Your task to perform on an android device: Show the shopping cart on newegg. Image 0: 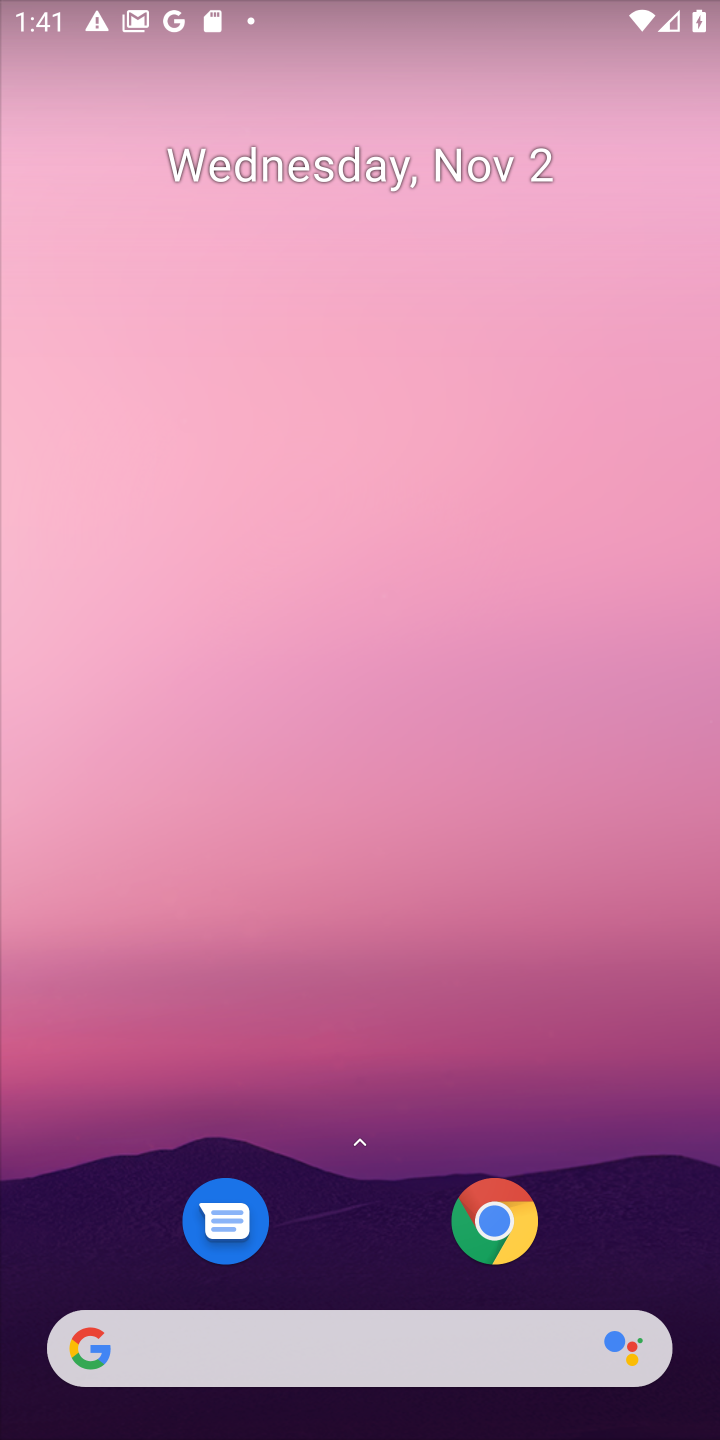
Step 0: click (312, 1338)
Your task to perform on an android device: Show the shopping cart on newegg. Image 1: 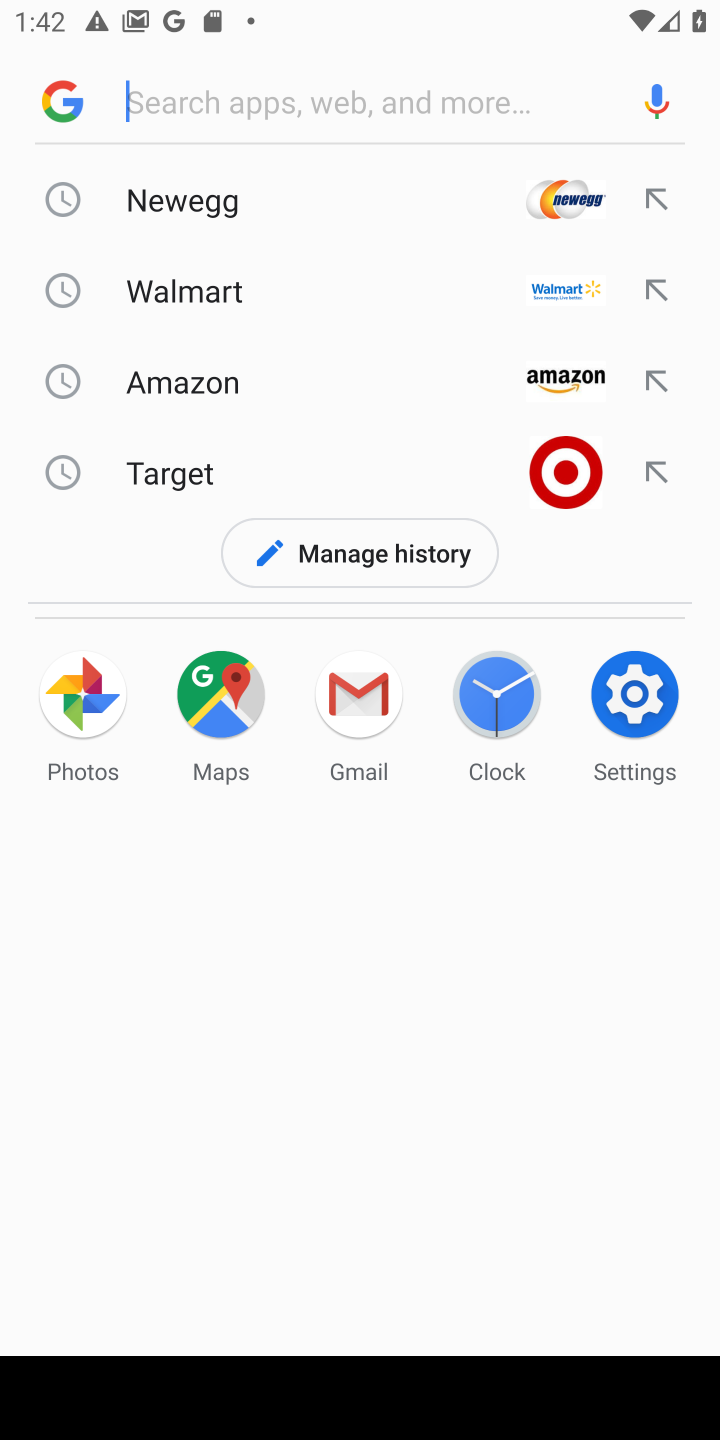
Step 1: click (171, 198)
Your task to perform on an android device: Show the shopping cart on newegg. Image 2: 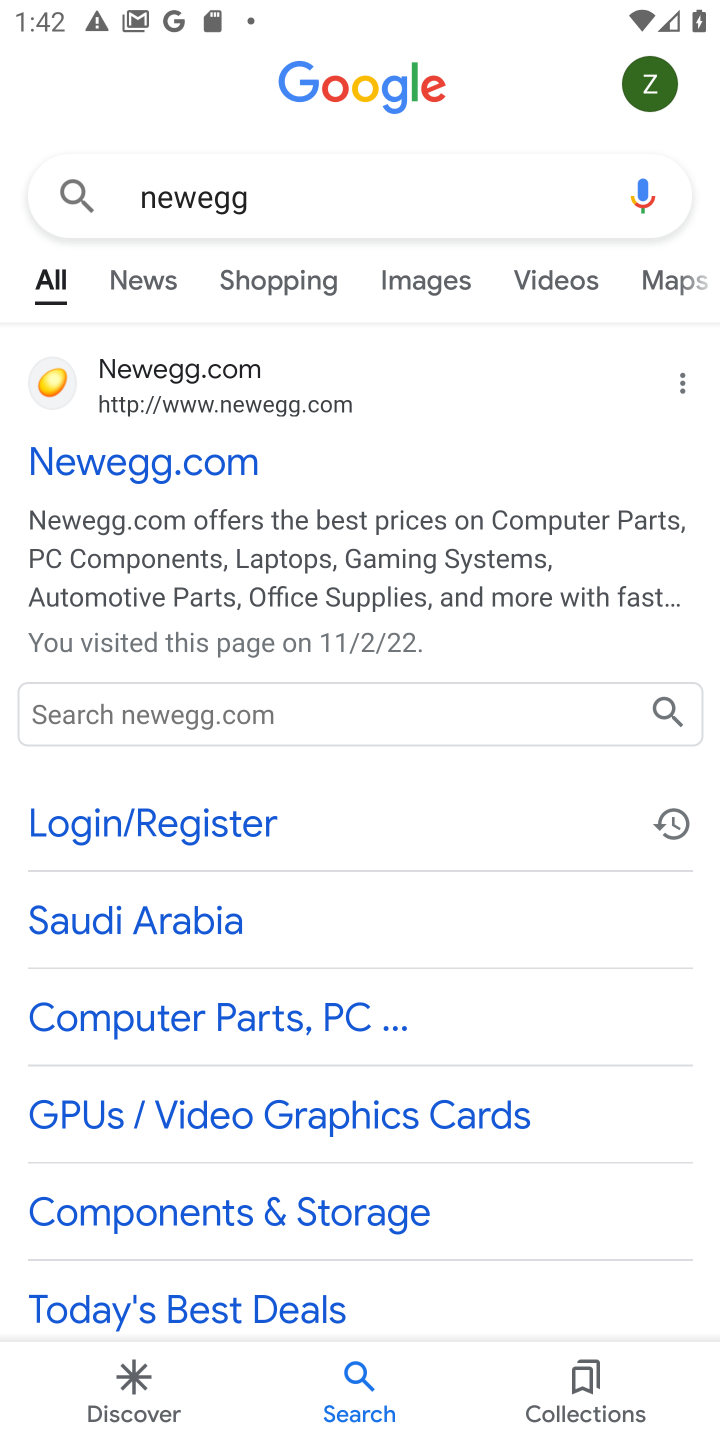
Step 2: click (156, 438)
Your task to perform on an android device: Show the shopping cart on newegg. Image 3: 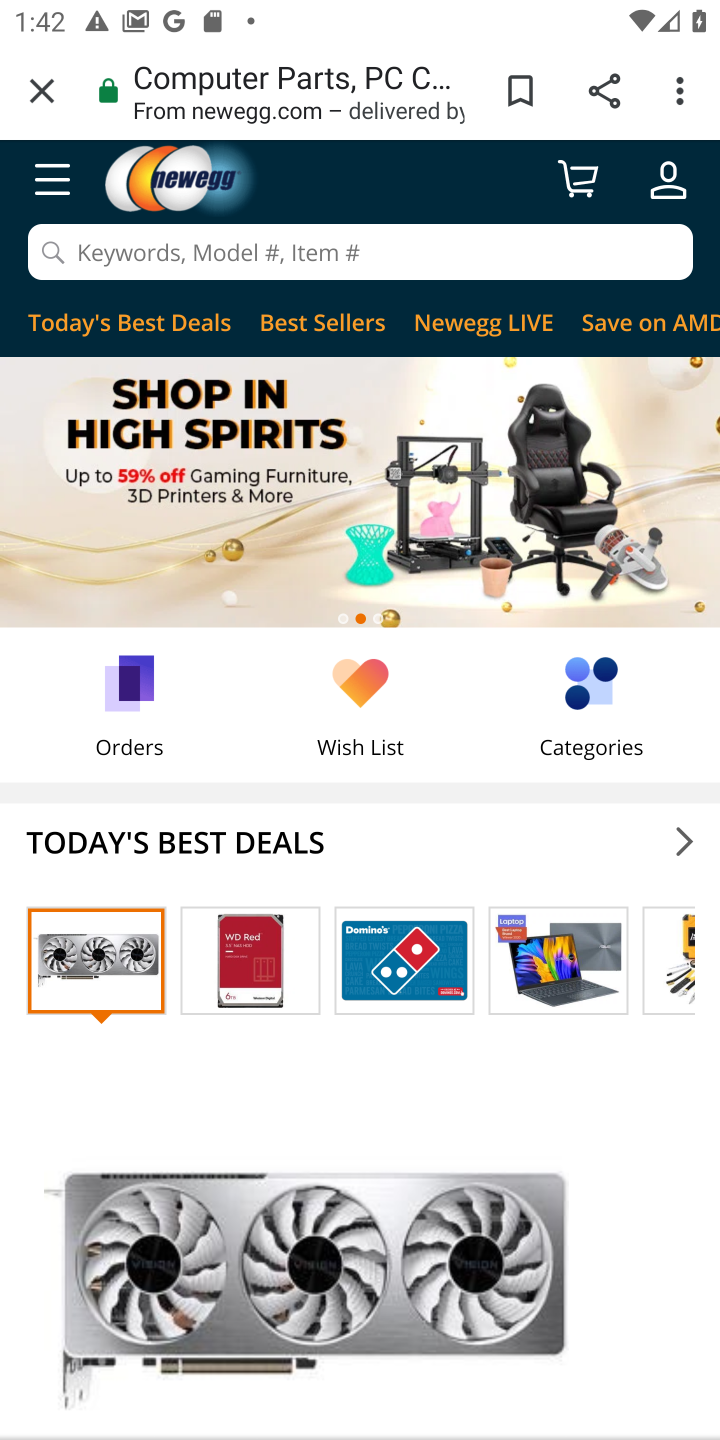
Step 3: click (583, 193)
Your task to perform on an android device: Show the shopping cart on newegg. Image 4: 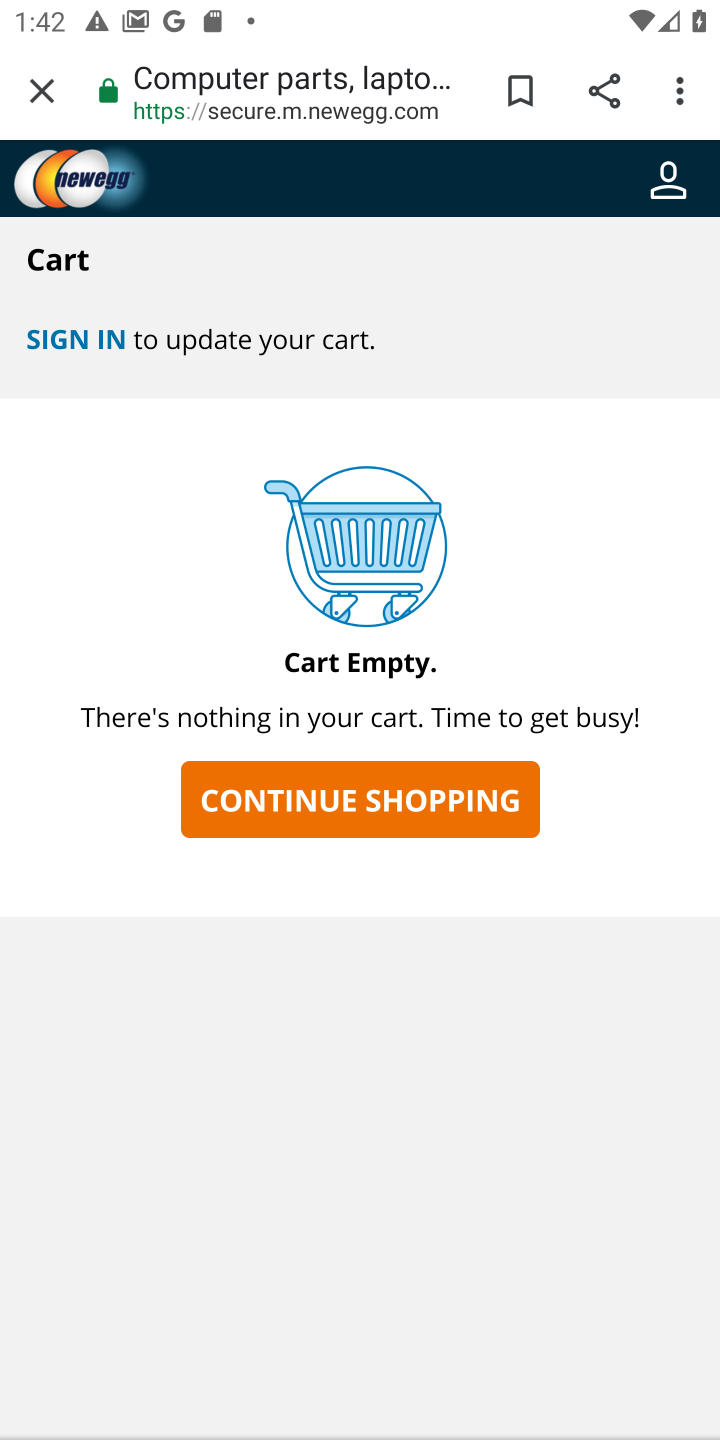
Step 4: task complete